Your task to perform on an android device: change text size in settings app Image 0: 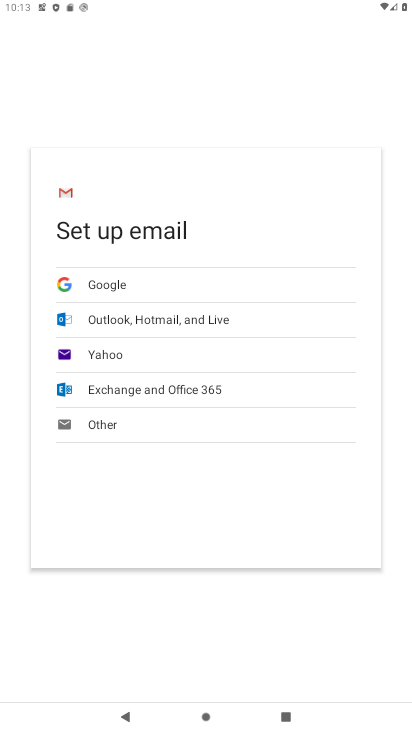
Step 0: press home button
Your task to perform on an android device: change text size in settings app Image 1: 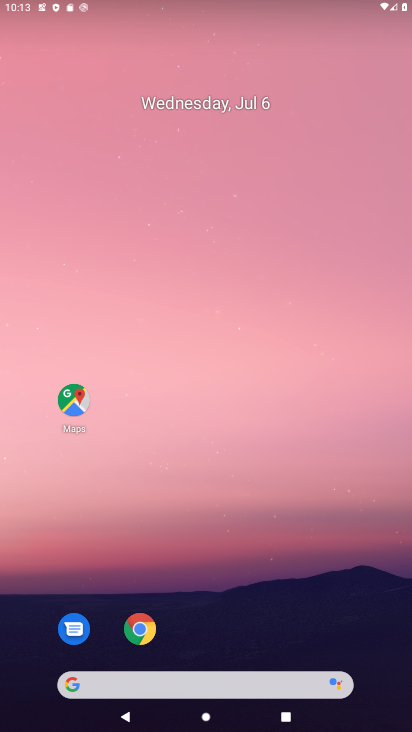
Step 1: drag from (206, 640) to (156, 75)
Your task to perform on an android device: change text size in settings app Image 2: 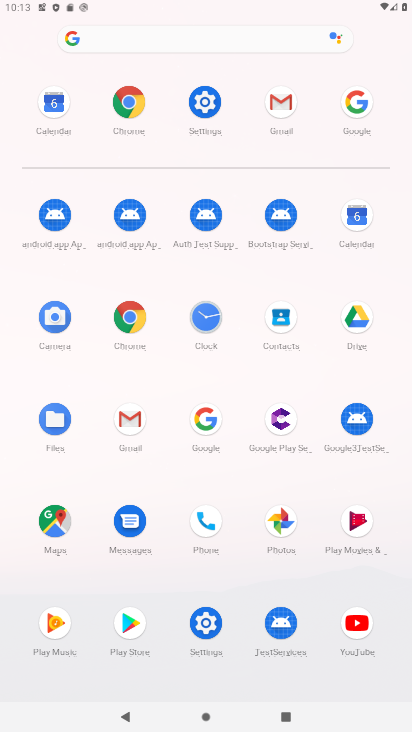
Step 2: click (202, 100)
Your task to perform on an android device: change text size in settings app Image 3: 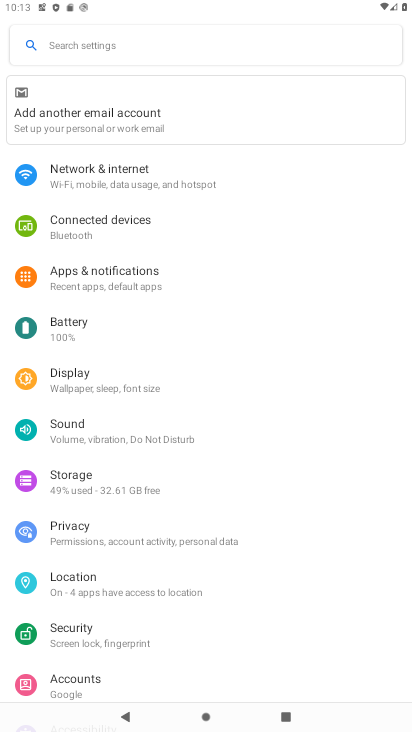
Step 3: click (125, 387)
Your task to perform on an android device: change text size in settings app Image 4: 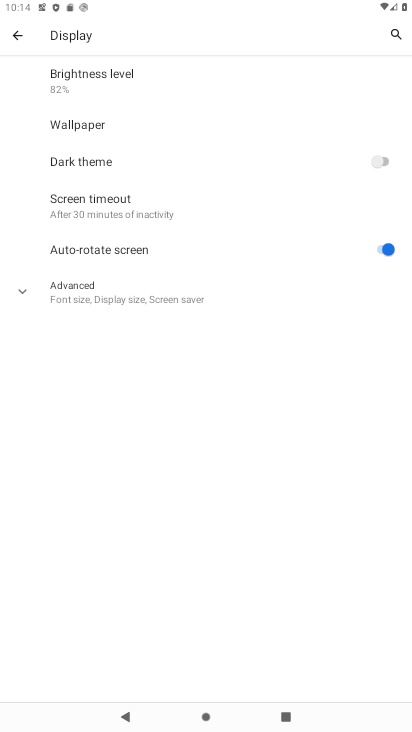
Step 4: click (91, 290)
Your task to perform on an android device: change text size in settings app Image 5: 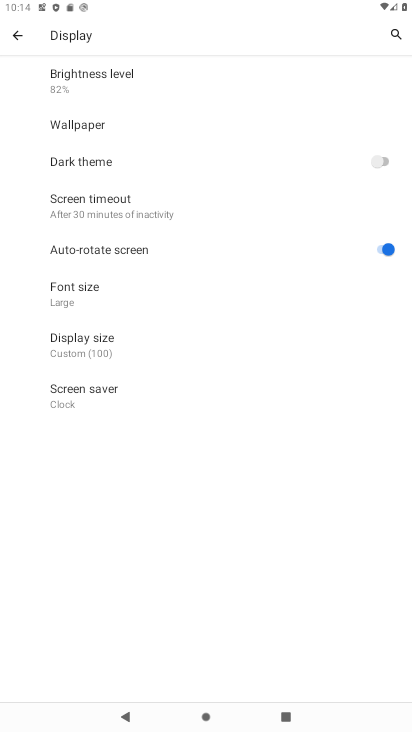
Step 5: click (93, 309)
Your task to perform on an android device: change text size in settings app Image 6: 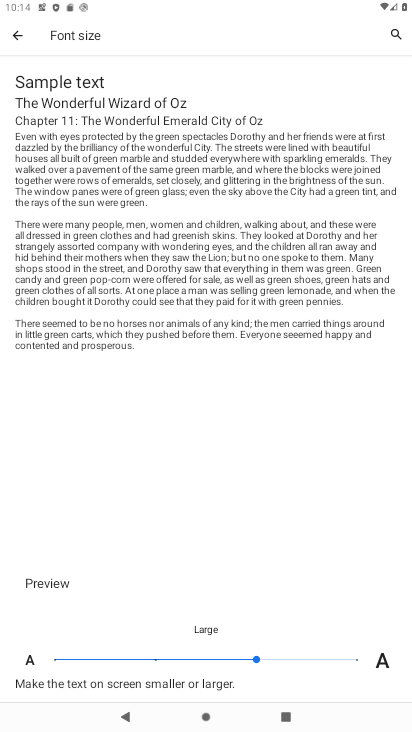
Step 6: task complete